Your task to perform on an android device: Go to CNN.com Image 0: 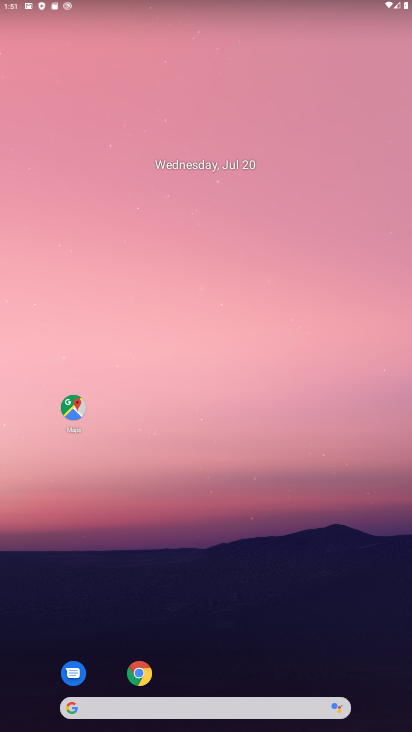
Step 0: drag from (210, 683) to (206, 93)
Your task to perform on an android device: Go to CNN.com Image 1: 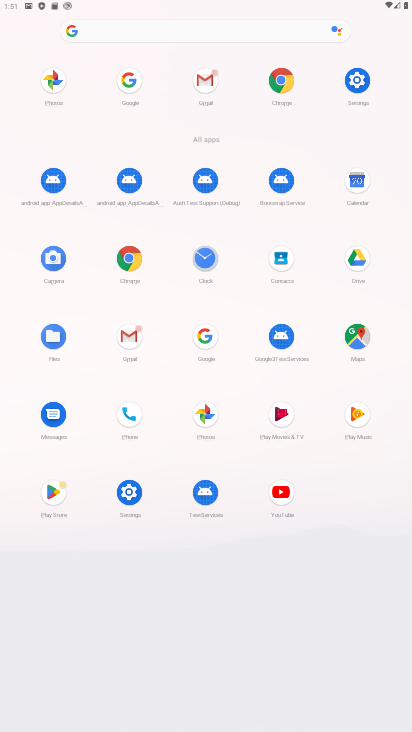
Step 1: click (197, 356)
Your task to perform on an android device: Go to CNN.com Image 2: 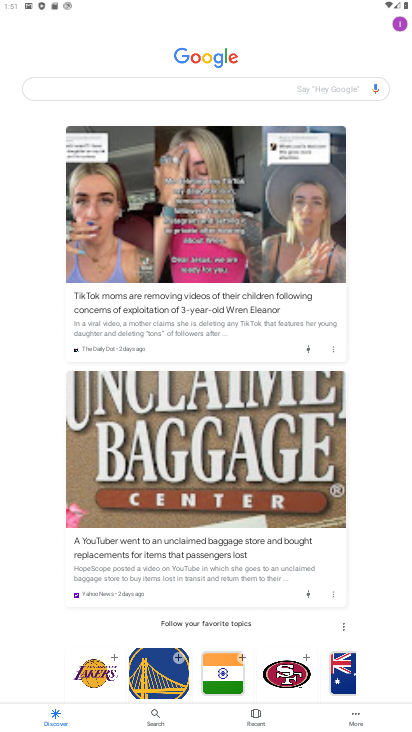
Step 2: click (173, 93)
Your task to perform on an android device: Go to CNN.com Image 3: 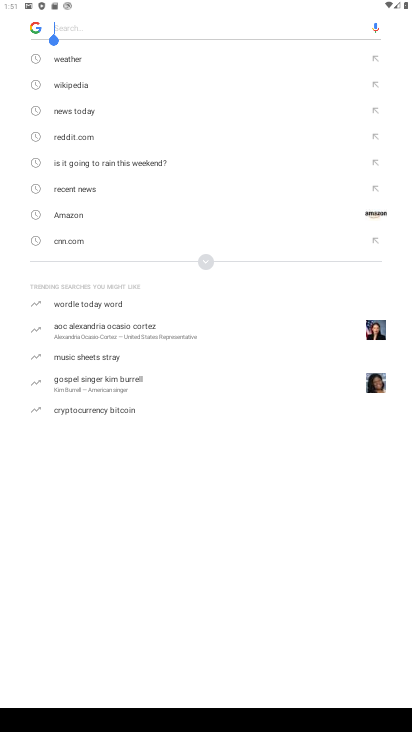
Step 3: click (78, 240)
Your task to perform on an android device: Go to CNN.com Image 4: 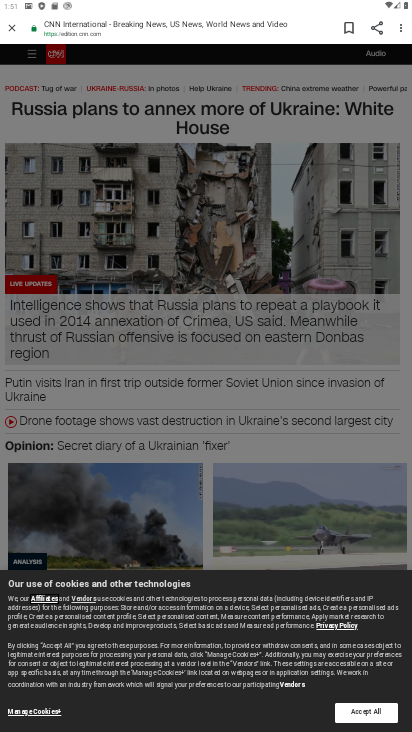
Step 4: task complete